Your task to perform on an android device: Go to eBay Image 0: 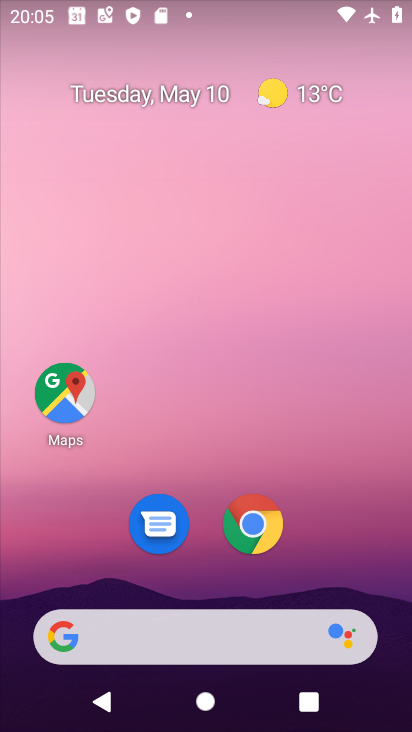
Step 0: click (242, 636)
Your task to perform on an android device: Go to eBay Image 1: 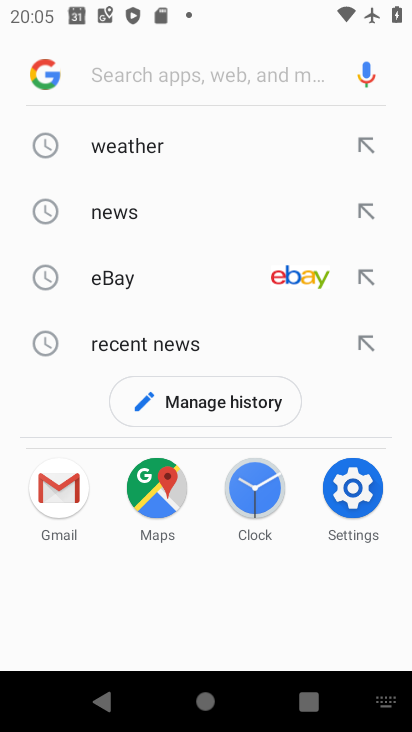
Step 1: click (104, 265)
Your task to perform on an android device: Go to eBay Image 2: 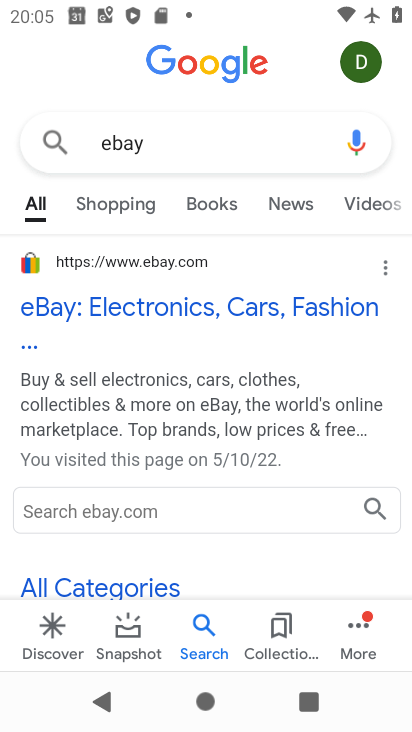
Step 2: click (108, 293)
Your task to perform on an android device: Go to eBay Image 3: 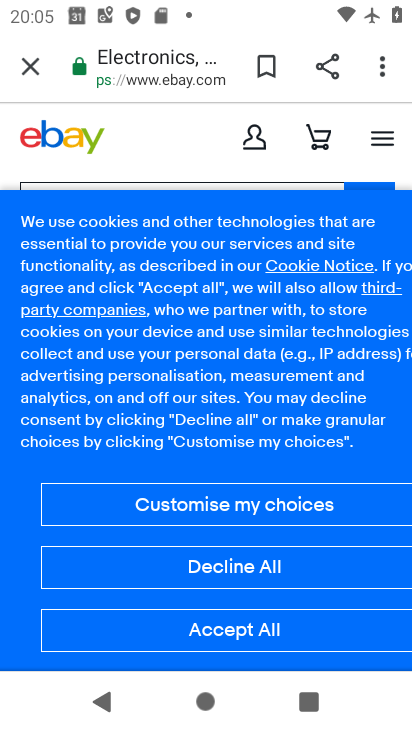
Step 3: task complete